Your task to perform on an android device: What's the weather today? Image 0: 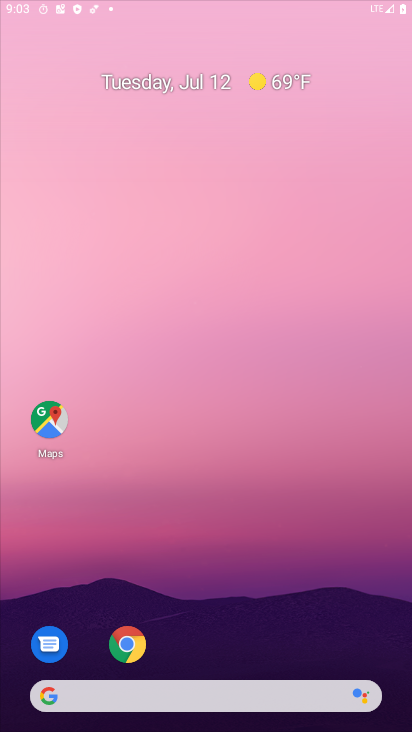
Step 0: press home button
Your task to perform on an android device: What's the weather today? Image 1: 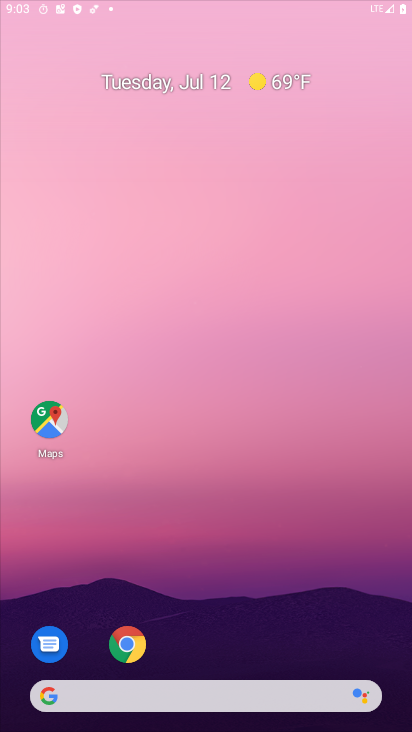
Step 1: click (272, 88)
Your task to perform on an android device: What's the weather today? Image 2: 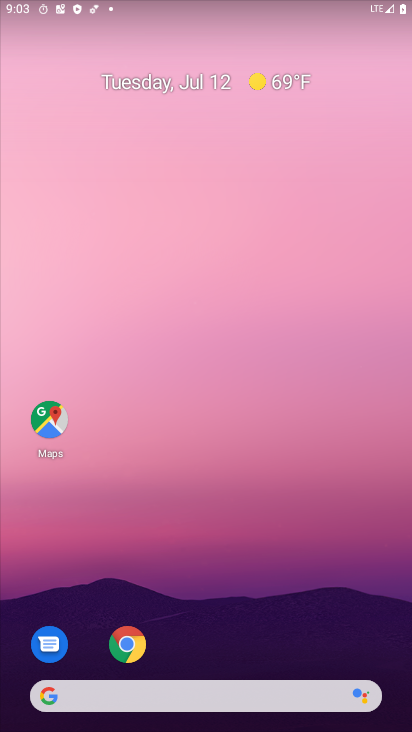
Step 2: drag from (204, 658) to (264, 55)
Your task to perform on an android device: What's the weather today? Image 3: 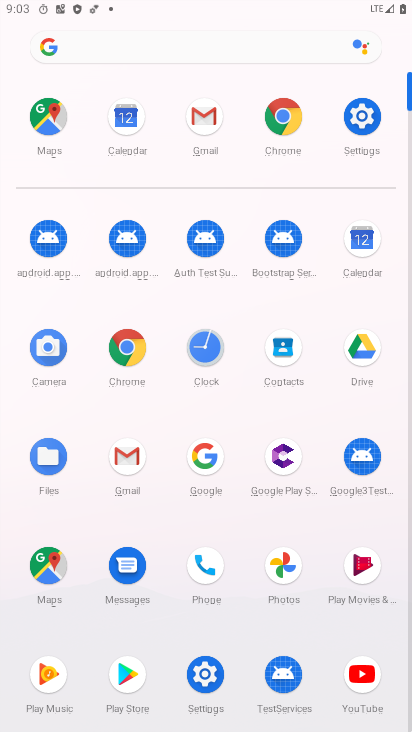
Step 3: click (179, 36)
Your task to perform on an android device: What's the weather today? Image 4: 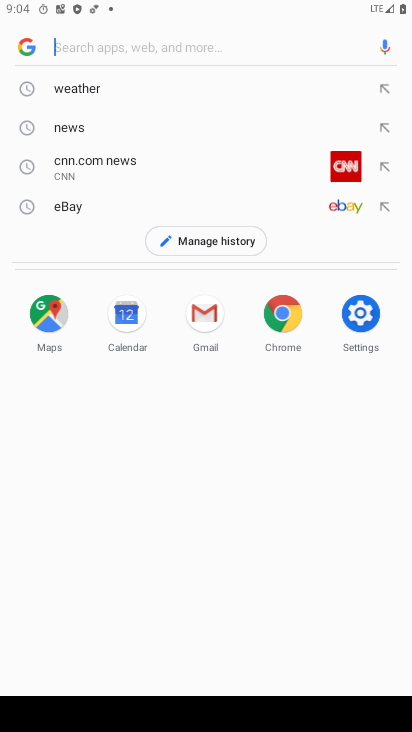
Step 4: click (111, 85)
Your task to perform on an android device: What's the weather today? Image 5: 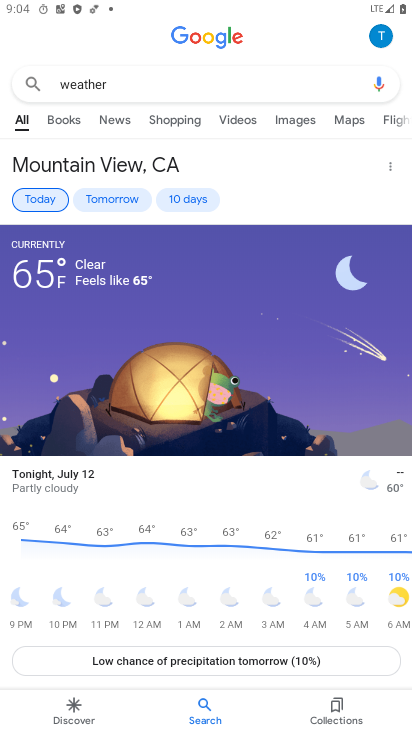
Step 5: task complete